Your task to perform on an android device: change notifications settings Image 0: 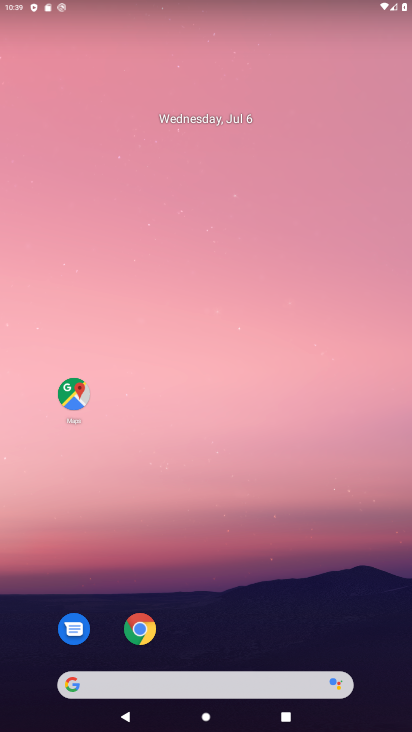
Step 0: drag from (218, 655) to (219, 19)
Your task to perform on an android device: change notifications settings Image 1: 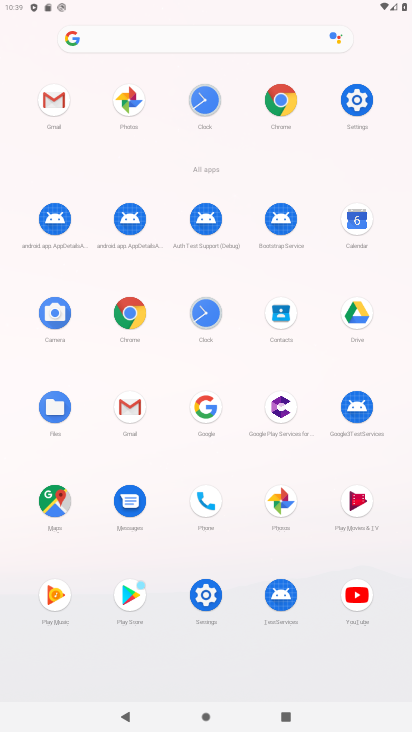
Step 1: click (356, 96)
Your task to perform on an android device: change notifications settings Image 2: 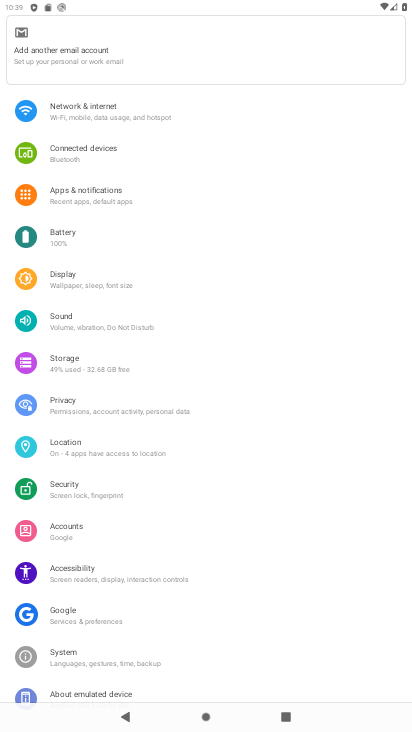
Step 2: click (101, 197)
Your task to perform on an android device: change notifications settings Image 3: 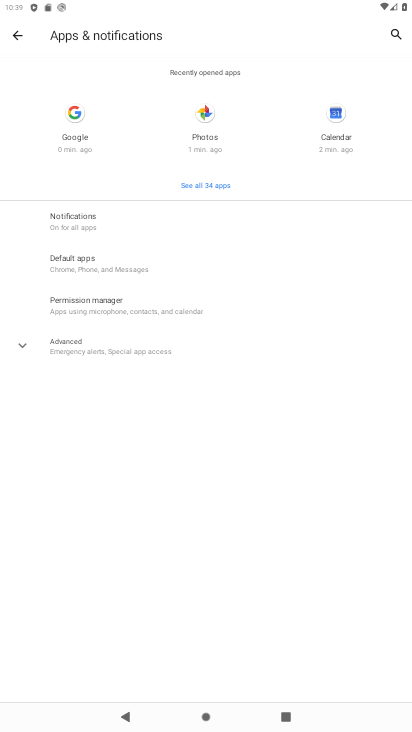
Step 3: click (109, 220)
Your task to perform on an android device: change notifications settings Image 4: 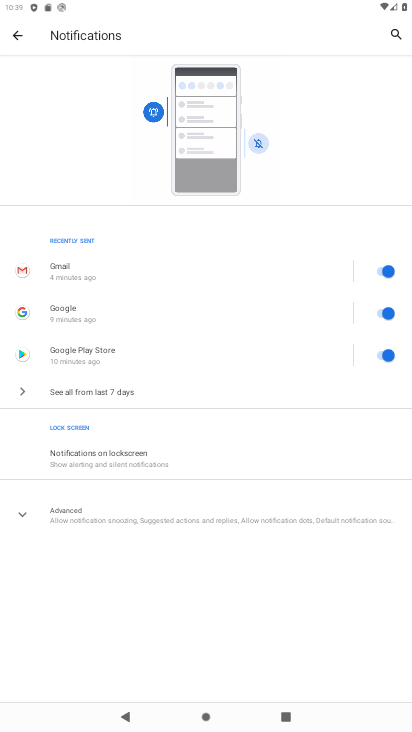
Step 4: click (380, 270)
Your task to perform on an android device: change notifications settings Image 5: 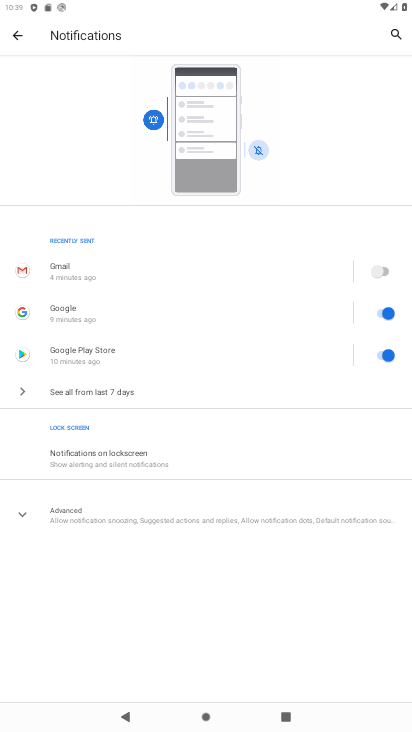
Step 5: click (378, 311)
Your task to perform on an android device: change notifications settings Image 6: 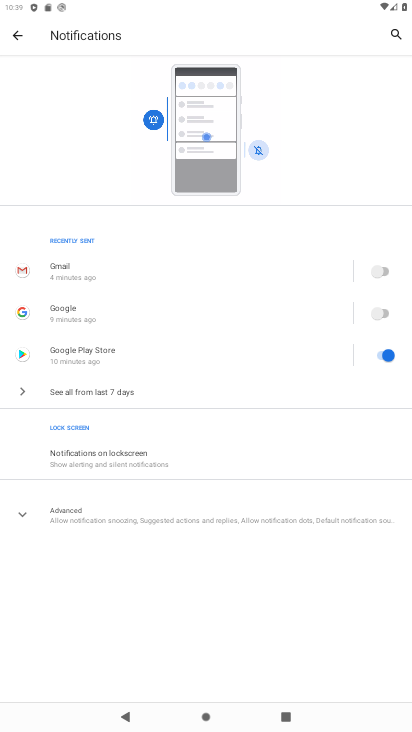
Step 6: click (384, 353)
Your task to perform on an android device: change notifications settings Image 7: 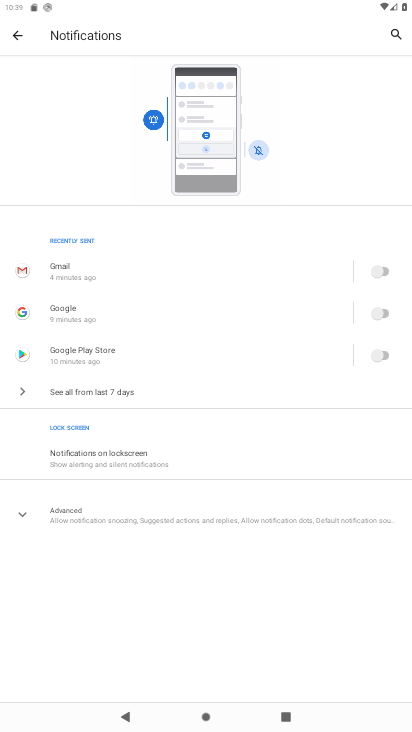
Step 7: click (68, 460)
Your task to perform on an android device: change notifications settings Image 8: 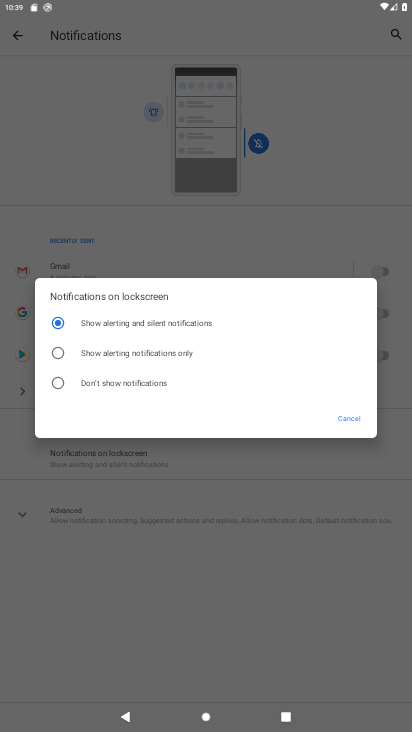
Step 8: click (55, 352)
Your task to perform on an android device: change notifications settings Image 9: 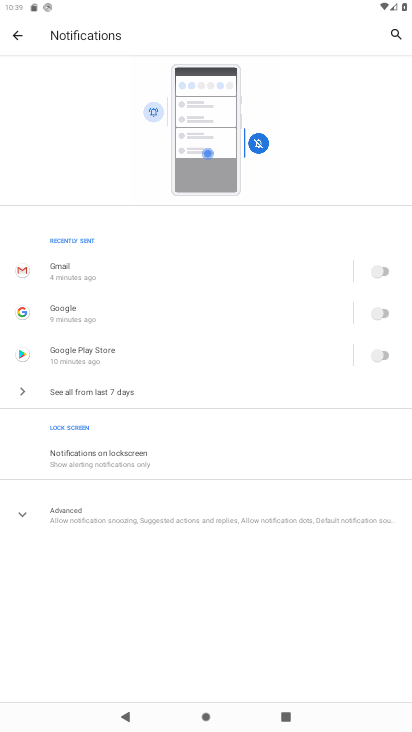
Step 9: click (19, 511)
Your task to perform on an android device: change notifications settings Image 10: 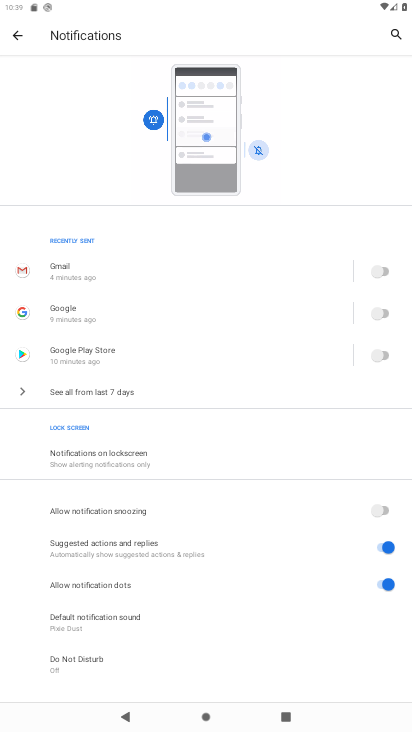
Step 10: click (383, 585)
Your task to perform on an android device: change notifications settings Image 11: 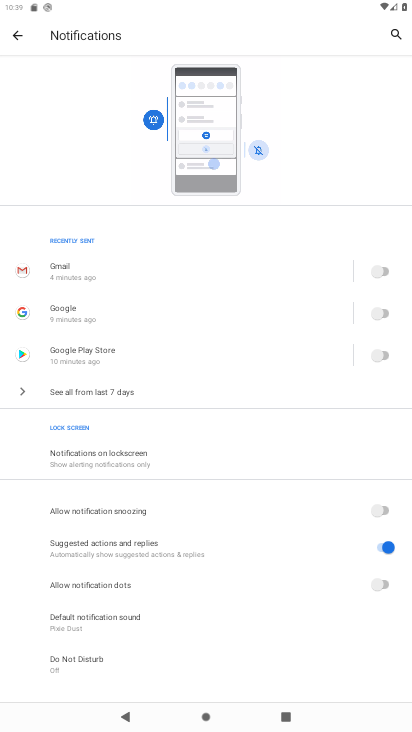
Step 11: click (385, 542)
Your task to perform on an android device: change notifications settings Image 12: 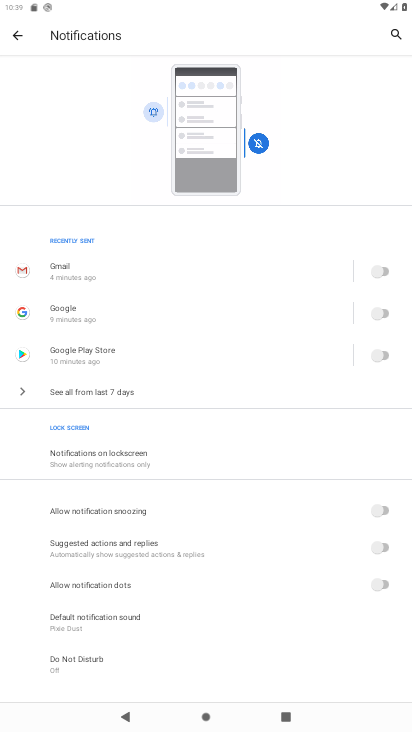
Step 12: task complete